Your task to perform on an android device: Go to Reddit.com Image 0: 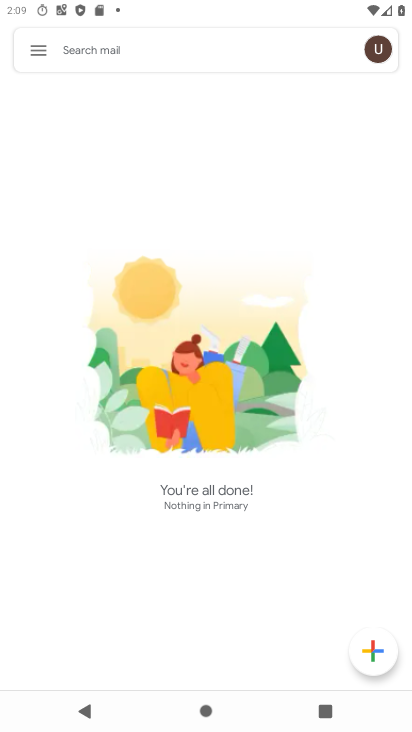
Step 0: click (130, 599)
Your task to perform on an android device: Go to Reddit.com Image 1: 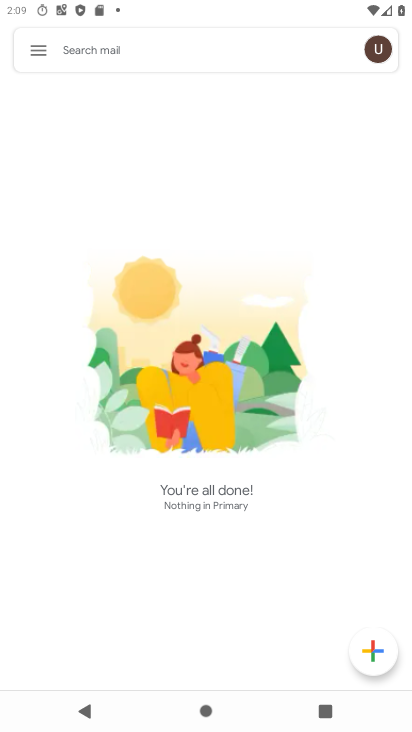
Step 1: press home button
Your task to perform on an android device: Go to Reddit.com Image 2: 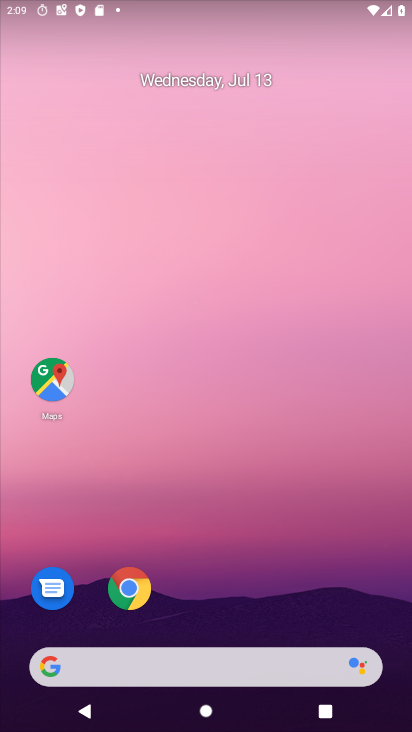
Step 2: drag from (148, 647) to (170, 278)
Your task to perform on an android device: Go to Reddit.com Image 3: 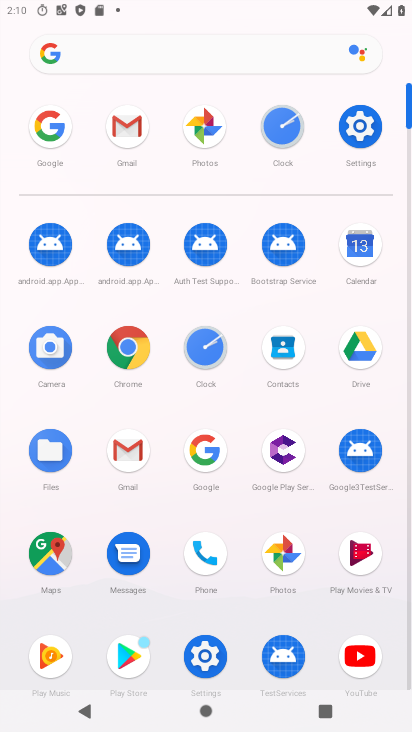
Step 3: click (202, 450)
Your task to perform on an android device: Go to Reddit.com Image 4: 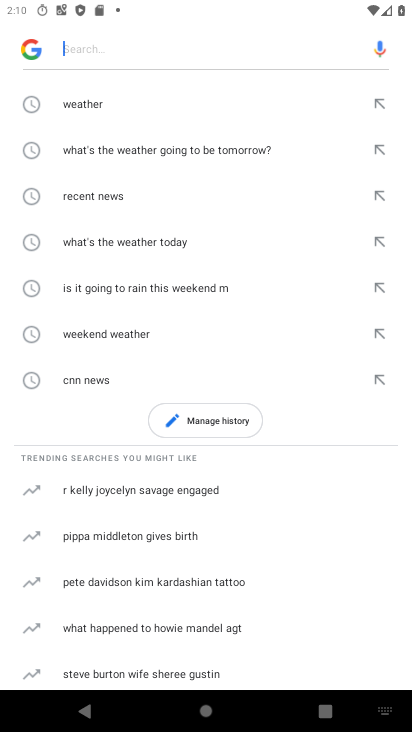
Step 4: type "reddit.com"
Your task to perform on an android device: Go to Reddit.com Image 5: 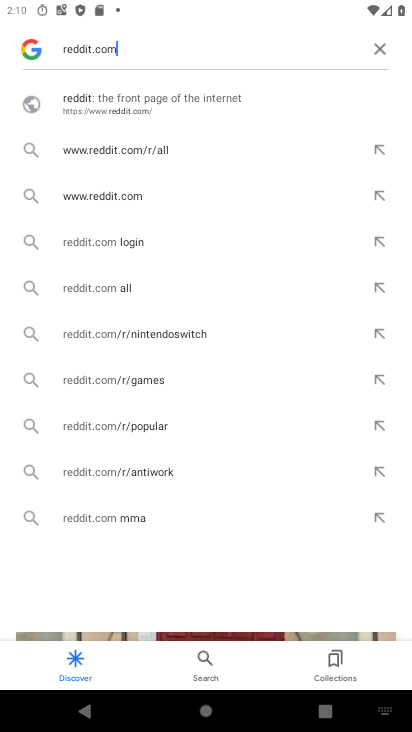
Step 5: click (219, 100)
Your task to perform on an android device: Go to Reddit.com Image 6: 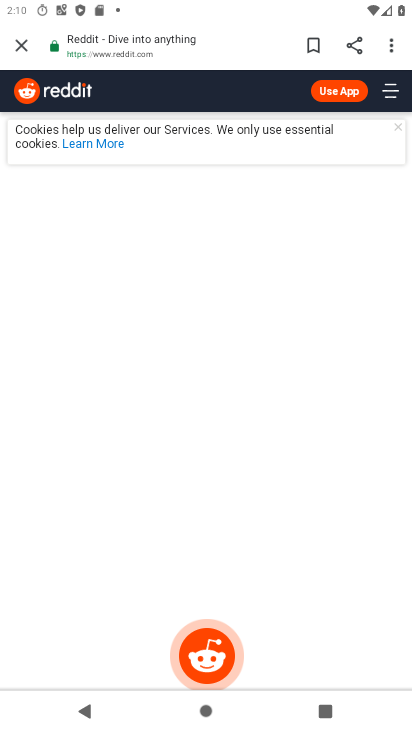
Step 6: task complete